Your task to perform on an android device: Open Google Maps Image 0: 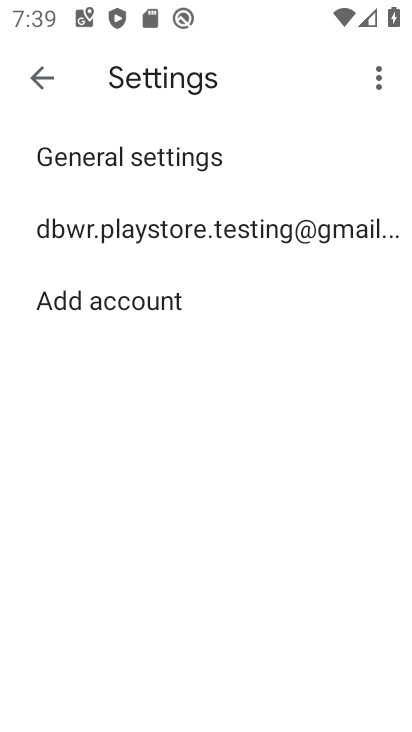
Step 0: press home button
Your task to perform on an android device: Open Google Maps Image 1: 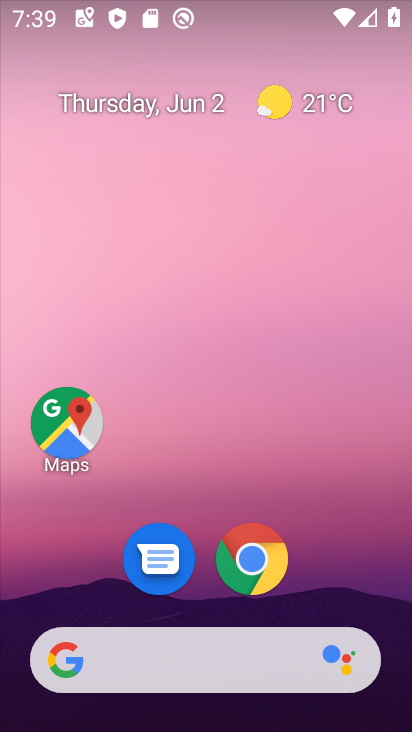
Step 1: click (58, 429)
Your task to perform on an android device: Open Google Maps Image 2: 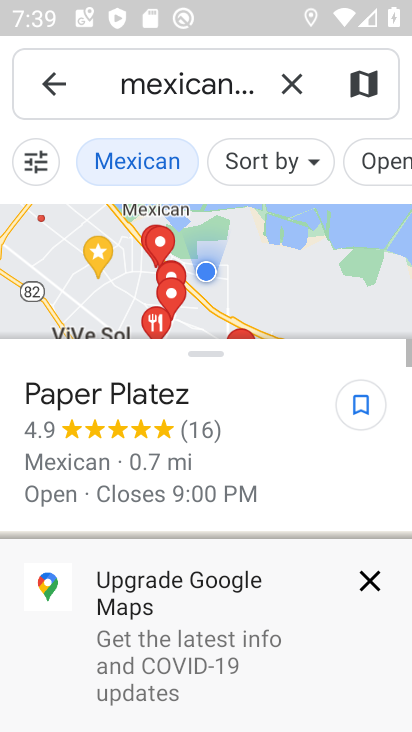
Step 2: task complete